Your task to perform on an android device: turn on the 24-hour format for clock Image 0: 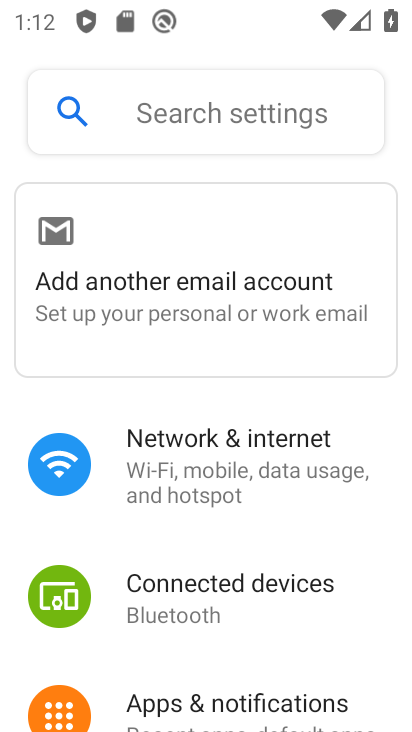
Step 0: press home button
Your task to perform on an android device: turn on the 24-hour format for clock Image 1: 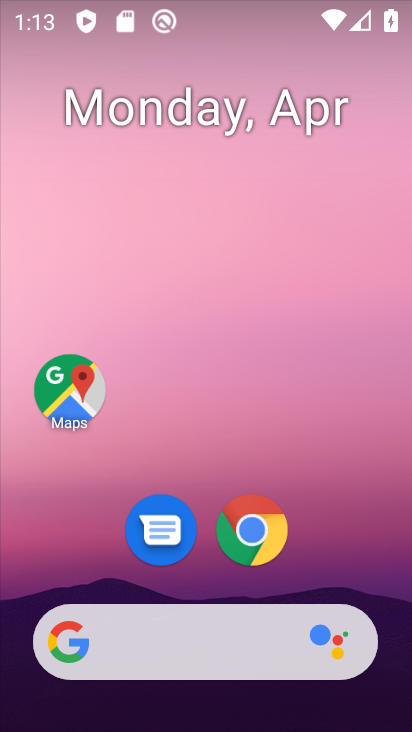
Step 1: drag from (336, 551) to (280, 29)
Your task to perform on an android device: turn on the 24-hour format for clock Image 2: 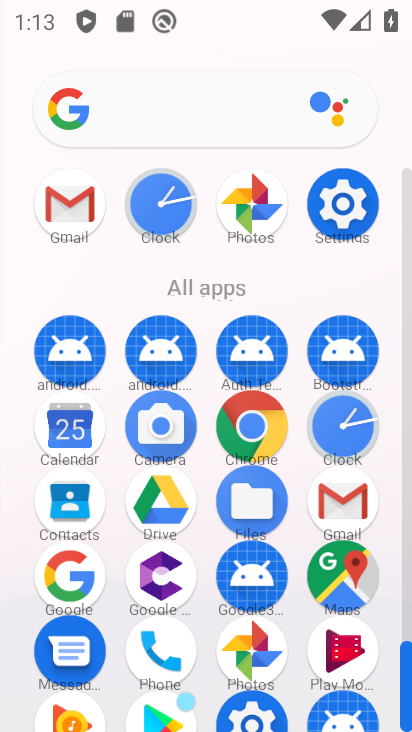
Step 2: click (347, 433)
Your task to perform on an android device: turn on the 24-hour format for clock Image 3: 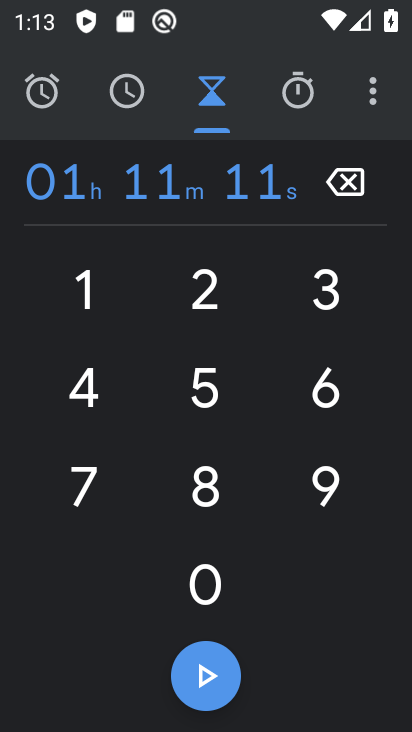
Step 3: click (368, 97)
Your task to perform on an android device: turn on the 24-hour format for clock Image 4: 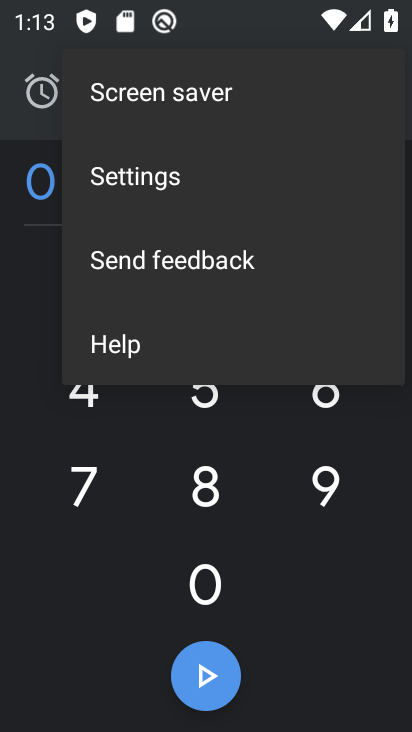
Step 4: click (144, 181)
Your task to perform on an android device: turn on the 24-hour format for clock Image 5: 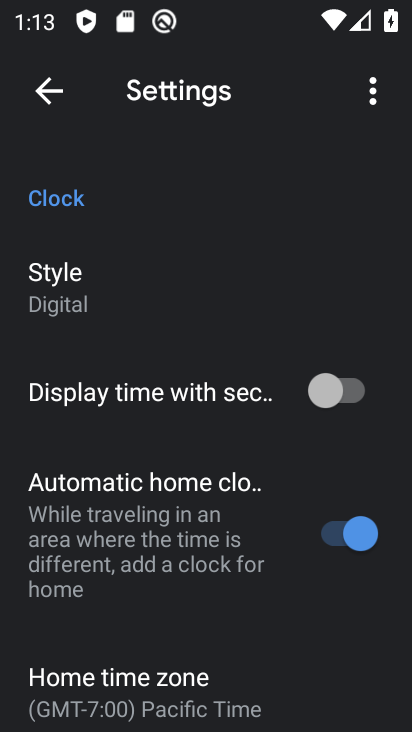
Step 5: drag from (269, 606) to (209, 303)
Your task to perform on an android device: turn on the 24-hour format for clock Image 6: 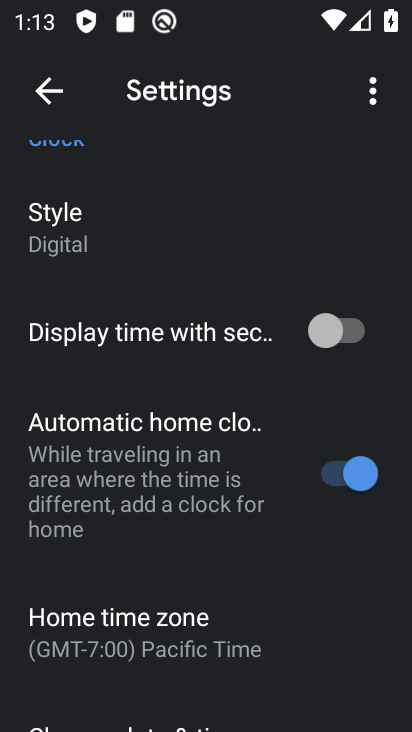
Step 6: click (147, 623)
Your task to perform on an android device: turn on the 24-hour format for clock Image 7: 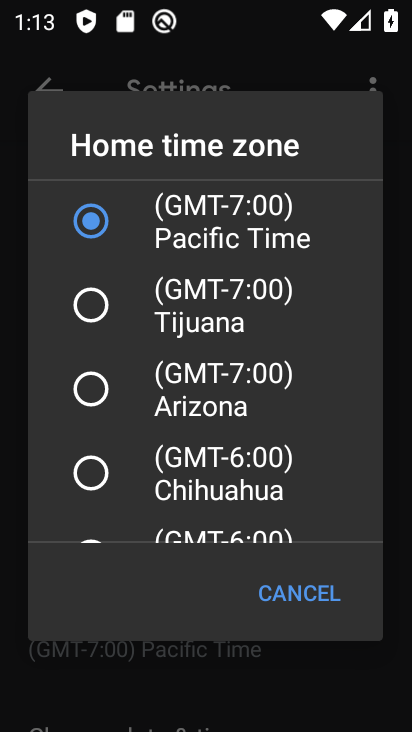
Step 7: click (293, 598)
Your task to perform on an android device: turn on the 24-hour format for clock Image 8: 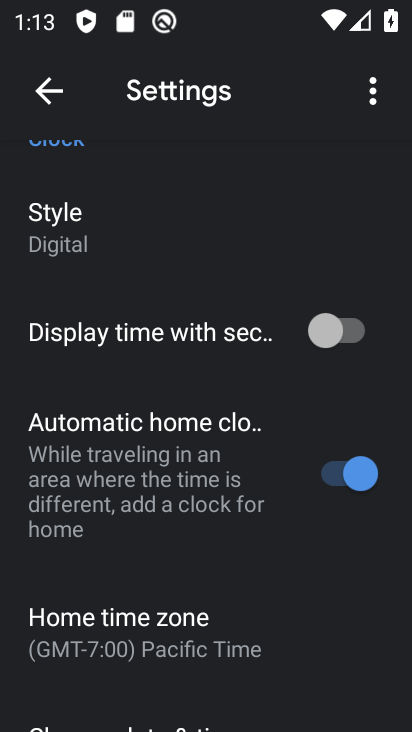
Step 8: drag from (272, 572) to (247, 334)
Your task to perform on an android device: turn on the 24-hour format for clock Image 9: 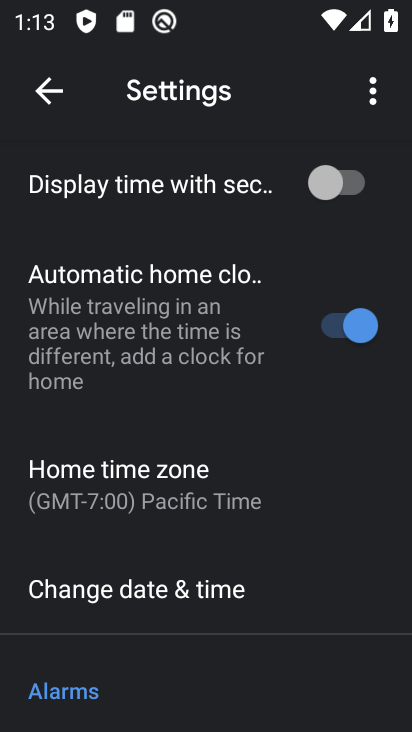
Step 9: click (167, 585)
Your task to perform on an android device: turn on the 24-hour format for clock Image 10: 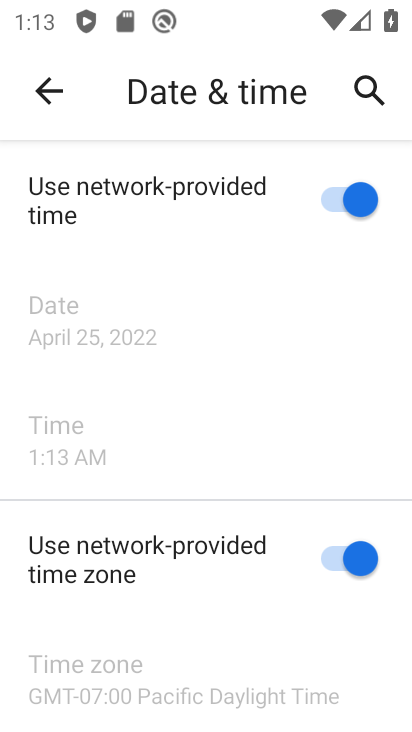
Step 10: drag from (182, 515) to (103, 102)
Your task to perform on an android device: turn on the 24-hour format for clock Image 11: 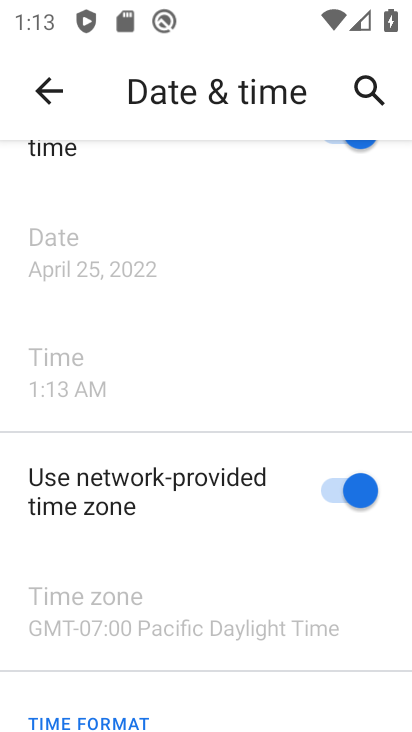
Step 11: drag from (154, 542) to (129, 124)
Your task to perform on an android device: turn on the 24-hour format for clock Image 12: 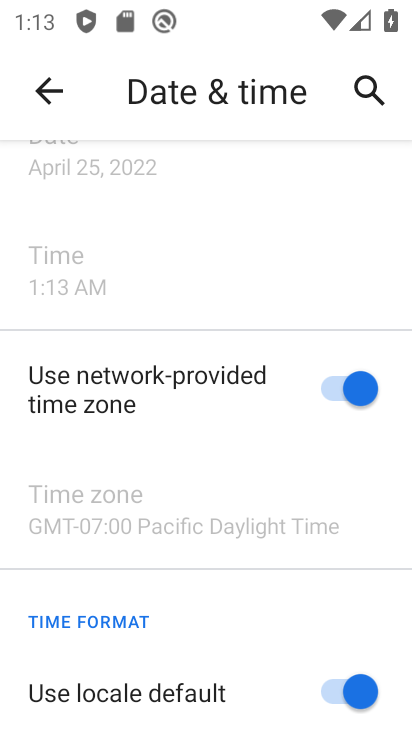
Step 12: drag from (217, 529) to (172, 205)
Your task to perform on an android device: turn on the 24-hour format for clock Image 13: 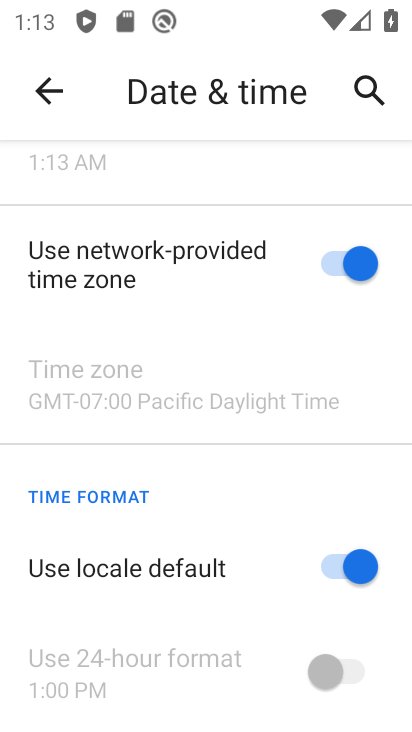
Step 13: click (319, 666)
Your task to perform on an android device: turn on the 24-hour format for clock Image 14: 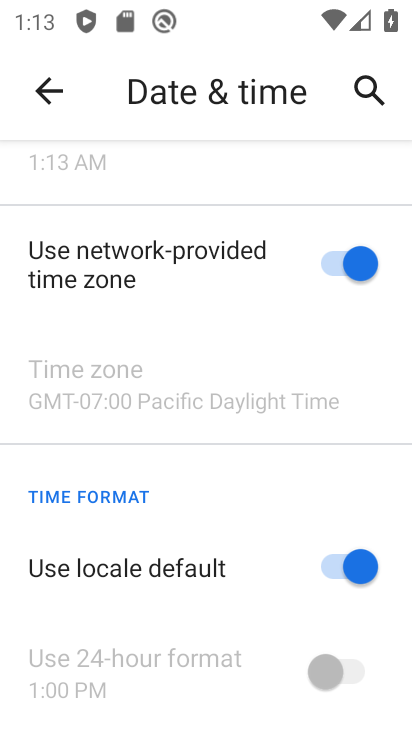
Step 14: click (369, 566)
Your task to perform on an android device: turn on the 24-hour format for clock Image 15: 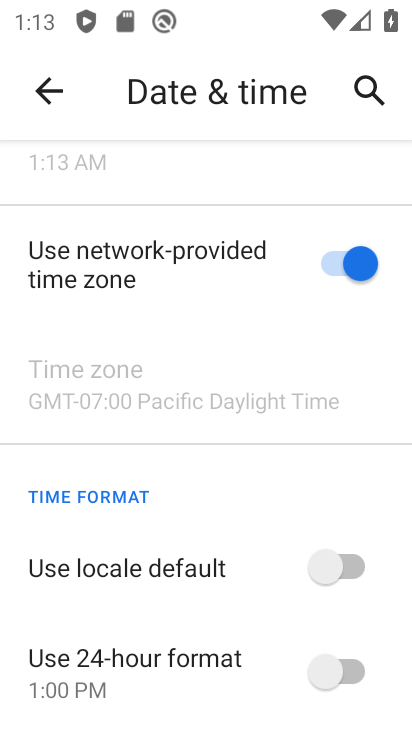
Step 15: click (328, 682)
Your task to perform on an android device: turn on the 24-hour format for clock Image 16: 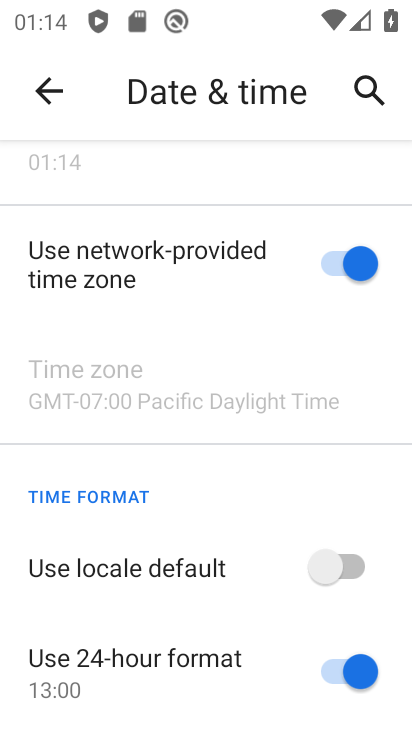
Step 16: task complete